Your task to perform on an android device: Open Youtube and go to "Your channel" Image 0: 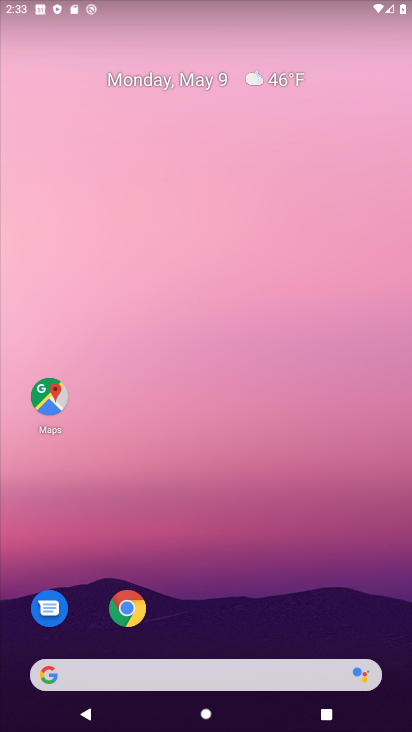
Step 0: drag from (238, 576) to (233, 145)
Your task to perform on an android device: Open Youtube and go to "Your channel" Image 1: 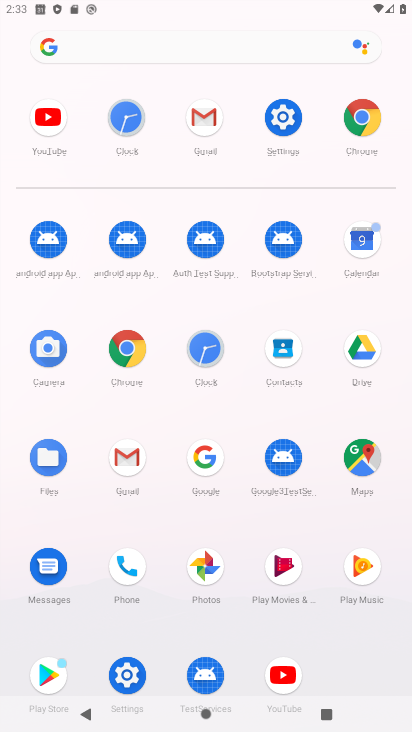
Step 1: click (293, 662)
Your task to perform on an android device: Open Youtube and go to "Your channel" Image 2: 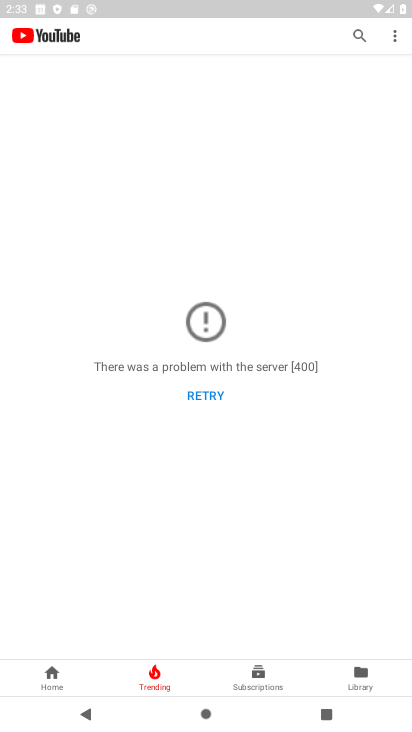
Step 2: click (393, 35)
Your task to perform on an android device: Open Youtube and go to "Your channel" Image 3: 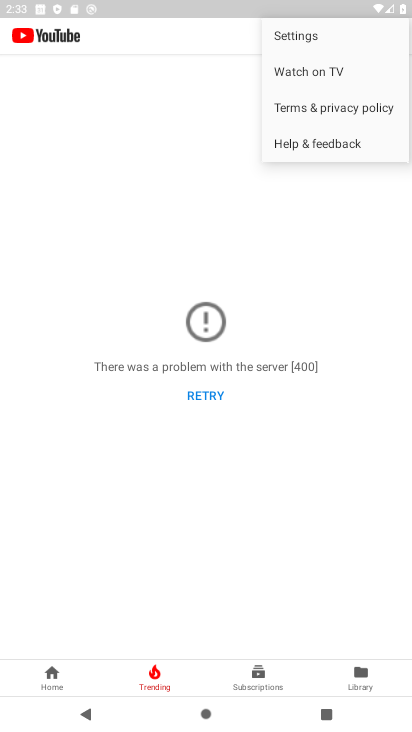
Step 3: click (43, 683)
Your task to perform on an android device: Open Youtube and go to "Your channel" Image 4: 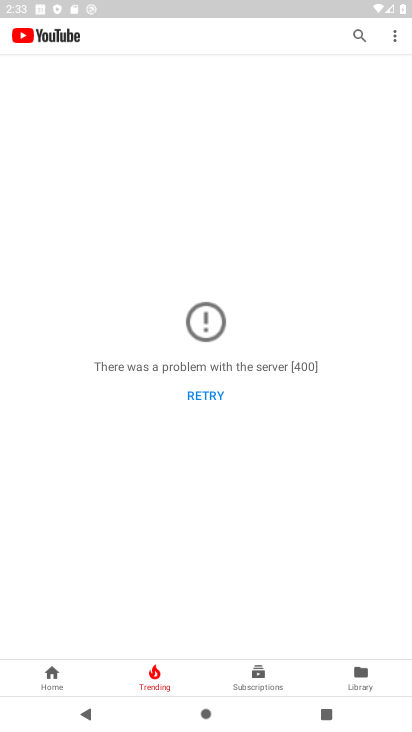
Step 4: click (358, 679)
Your task to perform on an android device: Open Youtube and go to "Your channel" Image 5: 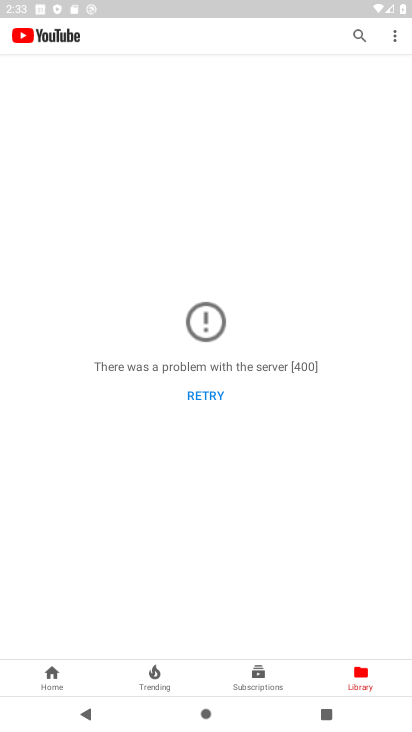
Step 5: task complete